Your task to perform on an android device: turn pop-ups on in chrome Image 0: 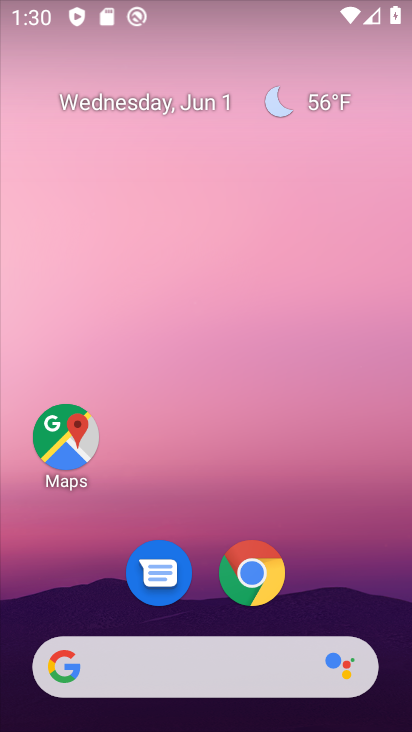
Step 0: click (244, 144)
Your task to perform on an android device: turn pop-ups on in chrome Image 1: 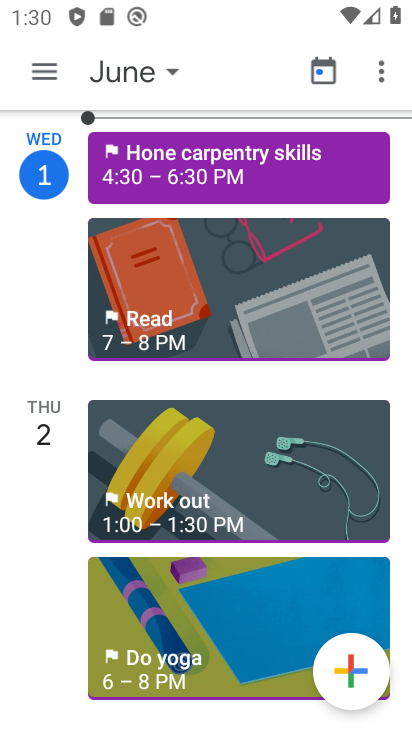
Step 1: press home button
Your task to perform on an android device: turn pop-ups on in chrome Image 2: 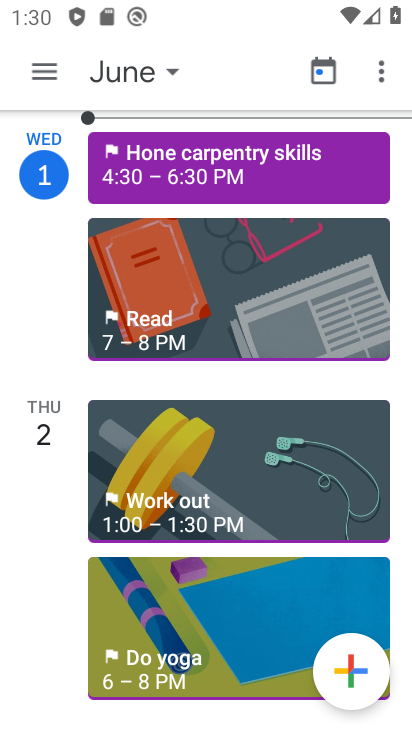
Step 2: press home button
Your task to perform on an android device: turn pop-ups on in chrome Image 3: 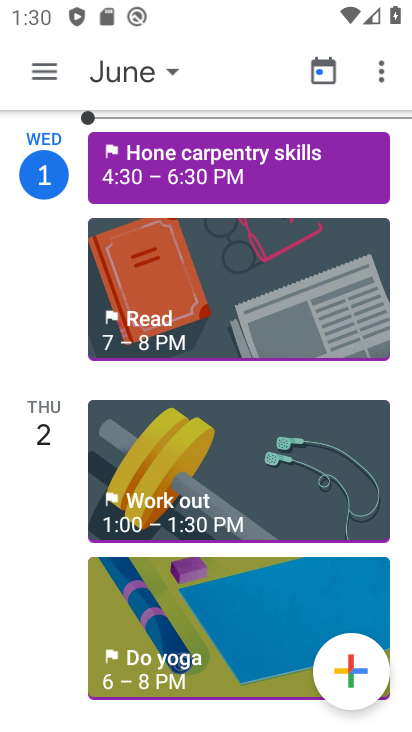
Step 3: click (220, 129)
Your task to perform on an android device: turn pop-ups on in chrome Image 4: 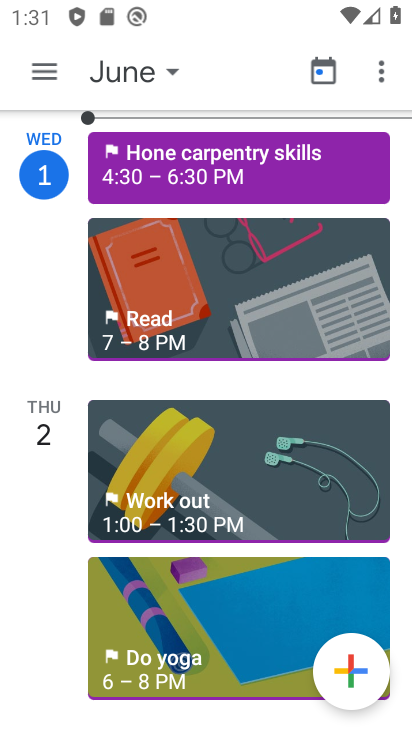
Step 4: press home button
Your task to perform on an android device: turn pop-ups on in chrome Image 5: 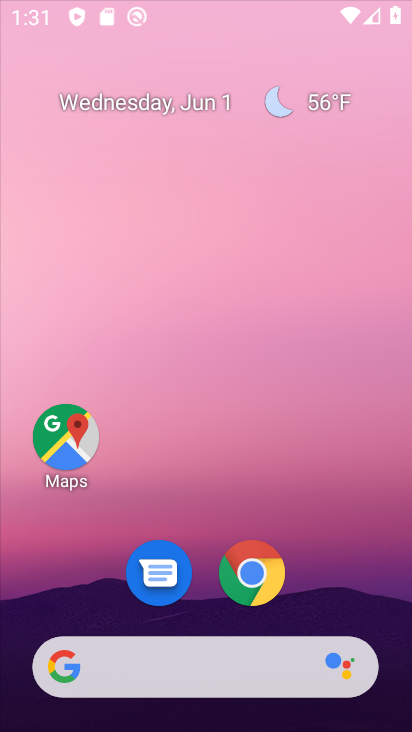
Step 5: drag from (229, 661) to (208, 287)
Your task to perform on an android device: turn pop-ups on in chrome Image 6: 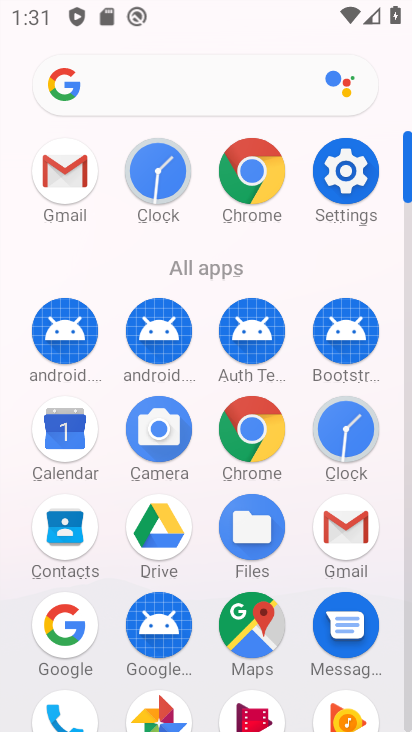
Step 6: click (248, 422)
Your task to perform on an android device: turn pop-ups on in chrome Image 7: 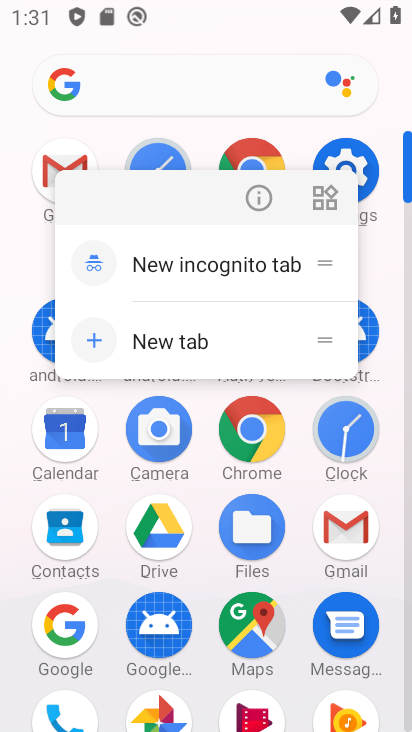
Step 7: click (247, 198)
Your task to perform on an android device: turn pop-ups on in chrome Image 8: 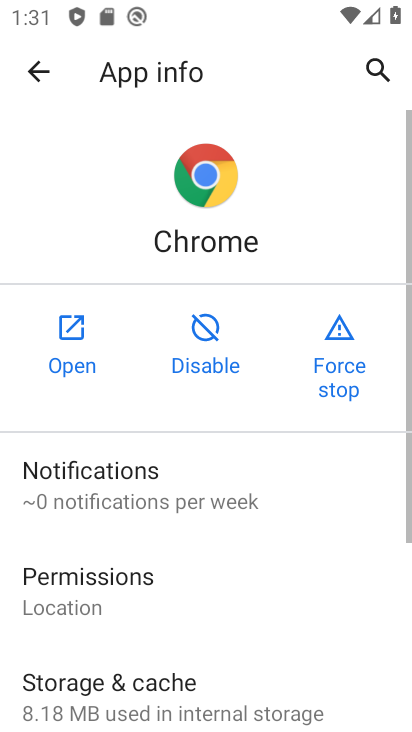
Step 8: click (66, 365)
Your task to perform on an android device: turn pop-ups on in chrome Image 9: 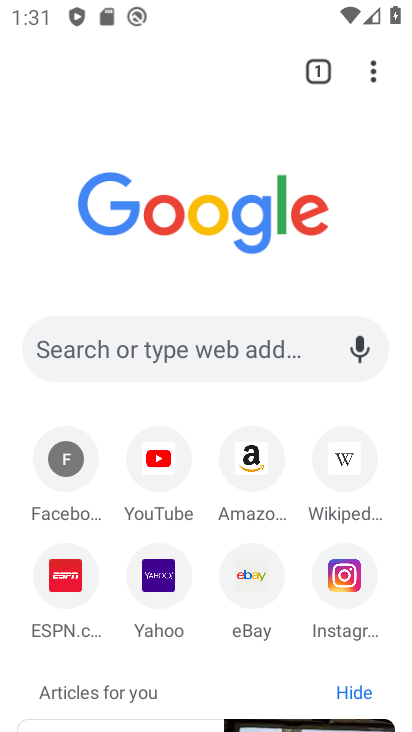
Step 9: drag from (370, 59) to (180, 586)
Your task to perform on an android device: turn pop-ups on in chrome Image 10: 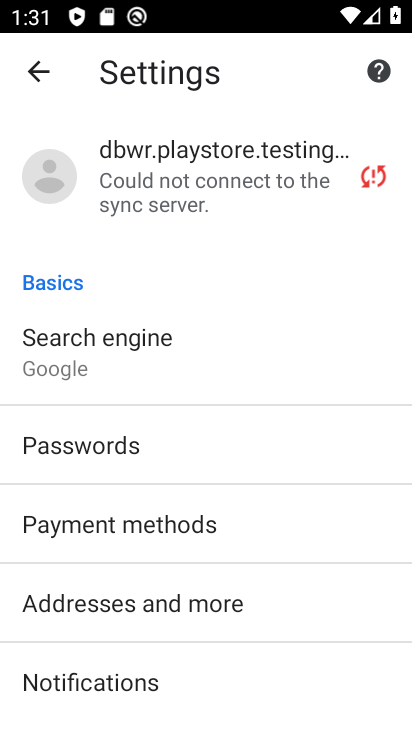
Step 10: drag from (217, 600) to (325, 137)
Your task to perform on an android device: turn pop-ups on in chrome Image 11: 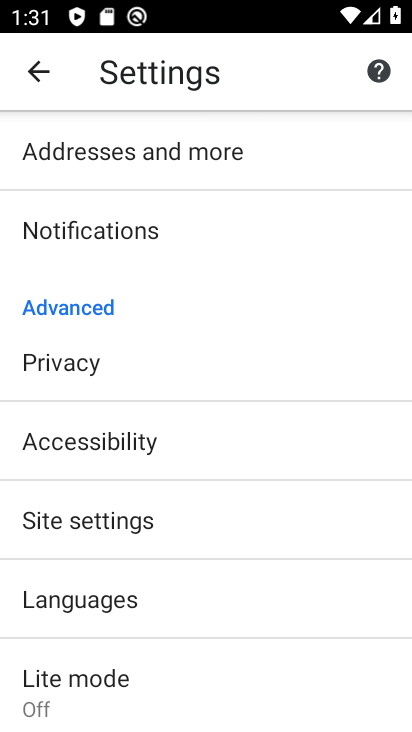
Step 11: drag from (211, 632) to (199, 250)
Your task to perform on an android device: turn pop-ups on in chrome Image 12: 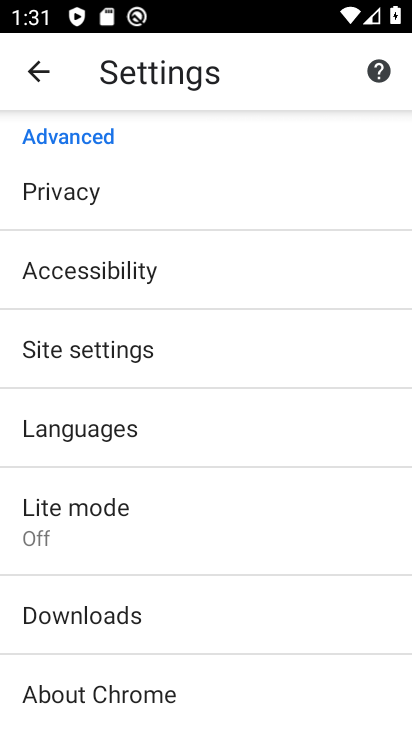
Step 12: click (133, 355)
Your task to perform on an android device: turn pop-ups on in chrome Image 13: 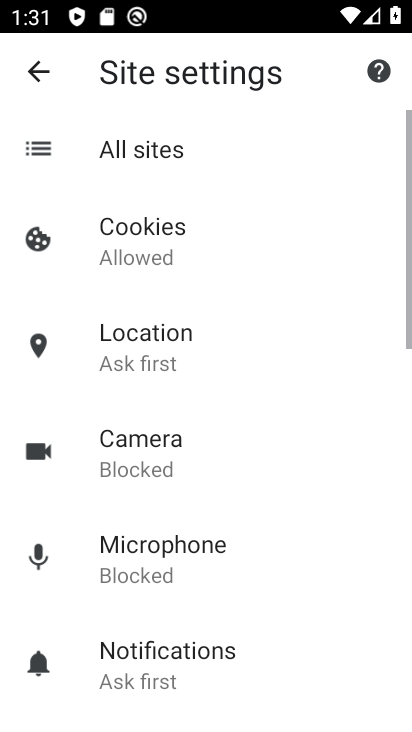
Step 13: drag from (208, 561) to (303, 17)
Your task to perform on an android device: turn pop-ups on in chrome Image 14: 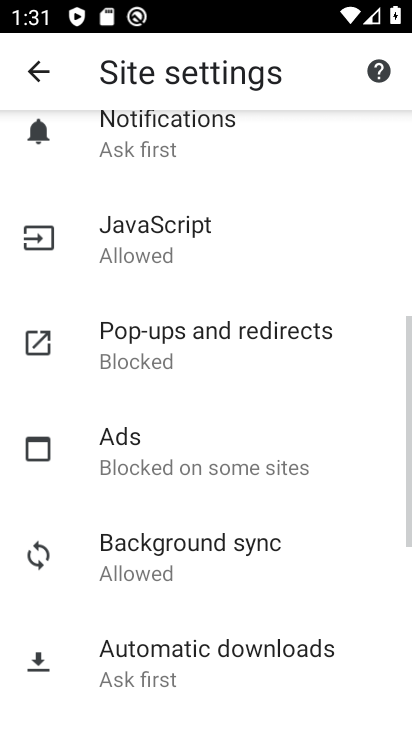
Step 14: click (175, 343)
Your task to perform on an android device: turn pop-ups on in chrome Image 15: 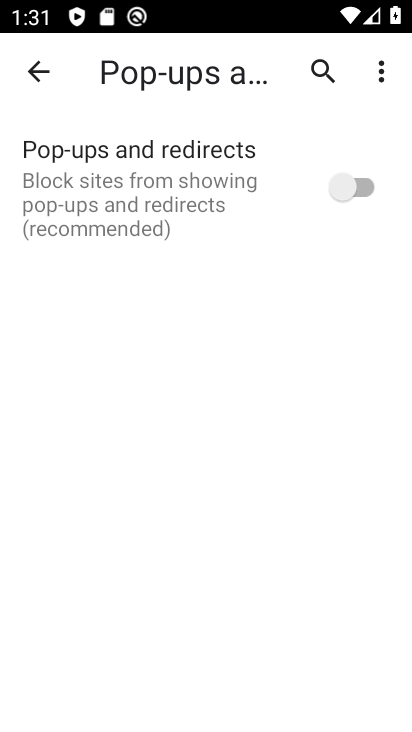
Step 15: click (326, 187)
Your task to perform on an android device: turn pop-ups on in chrome Image 16: 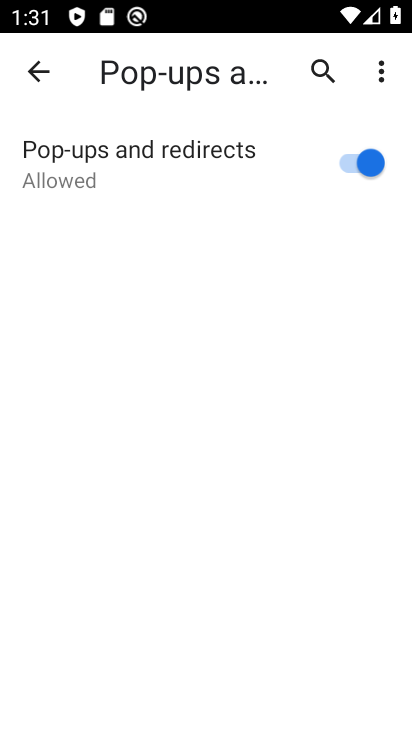
Step 16: task complete